Your task to perform on an android device: open app "PlayWell" Image 0: 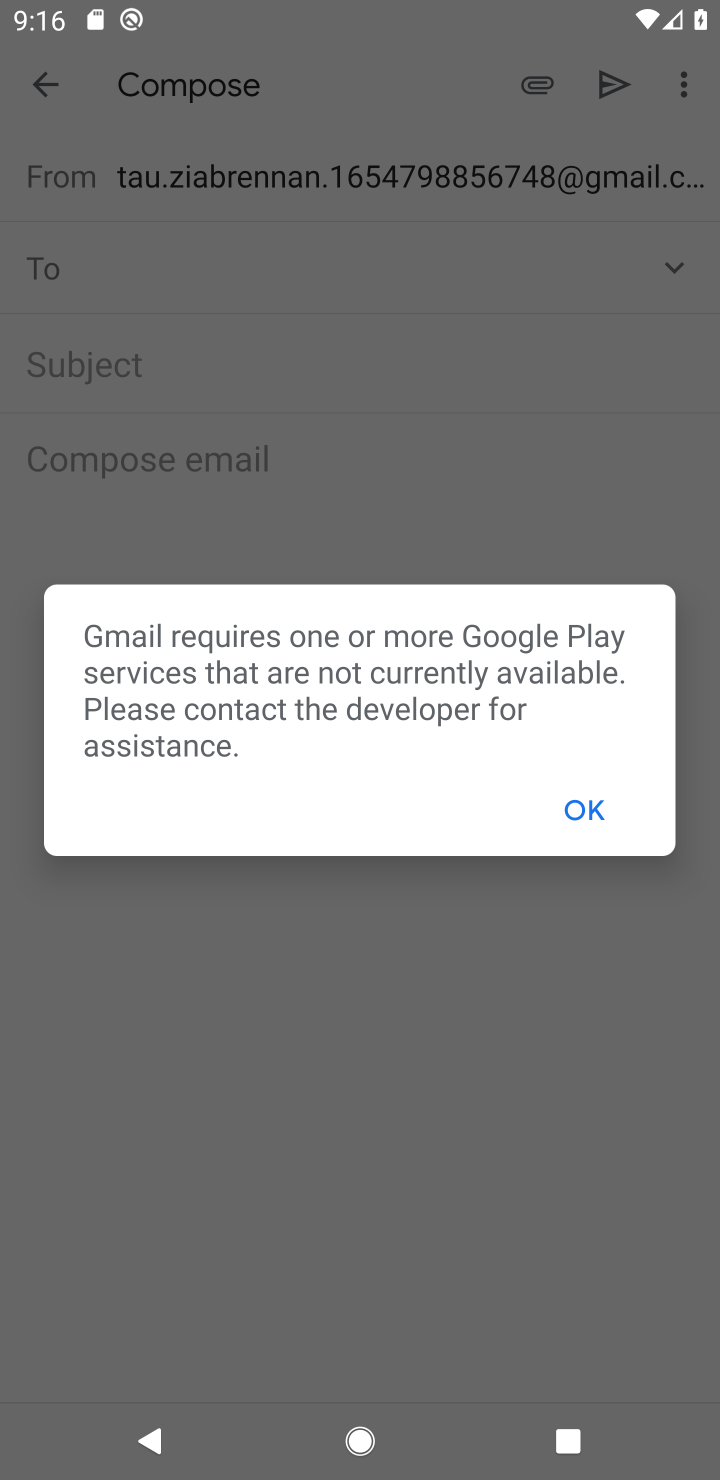
Step 0: press back button
Your task to perform on an android device: open app "PlayWell" Image 1: 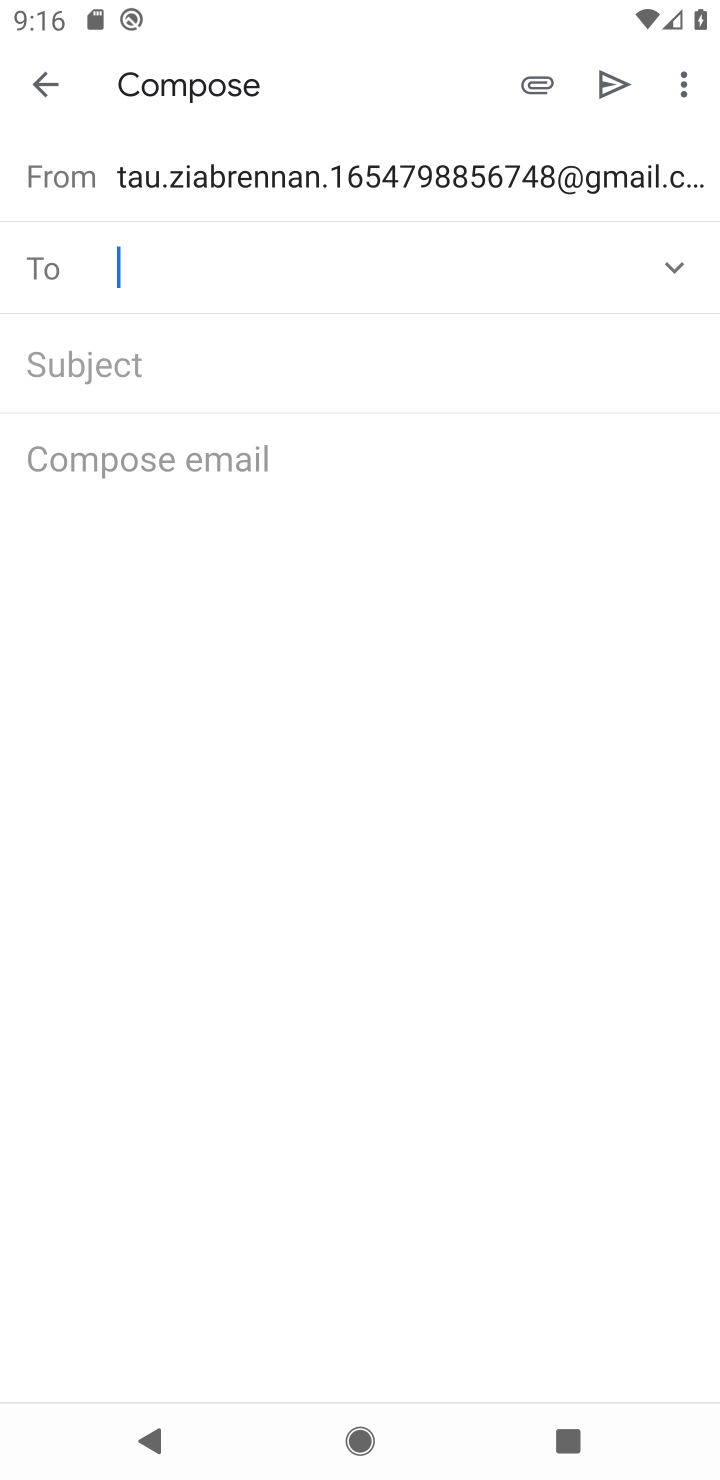
Step 1: press back button
Your task to perform on an android device: open app "PlayWell" Image 2: 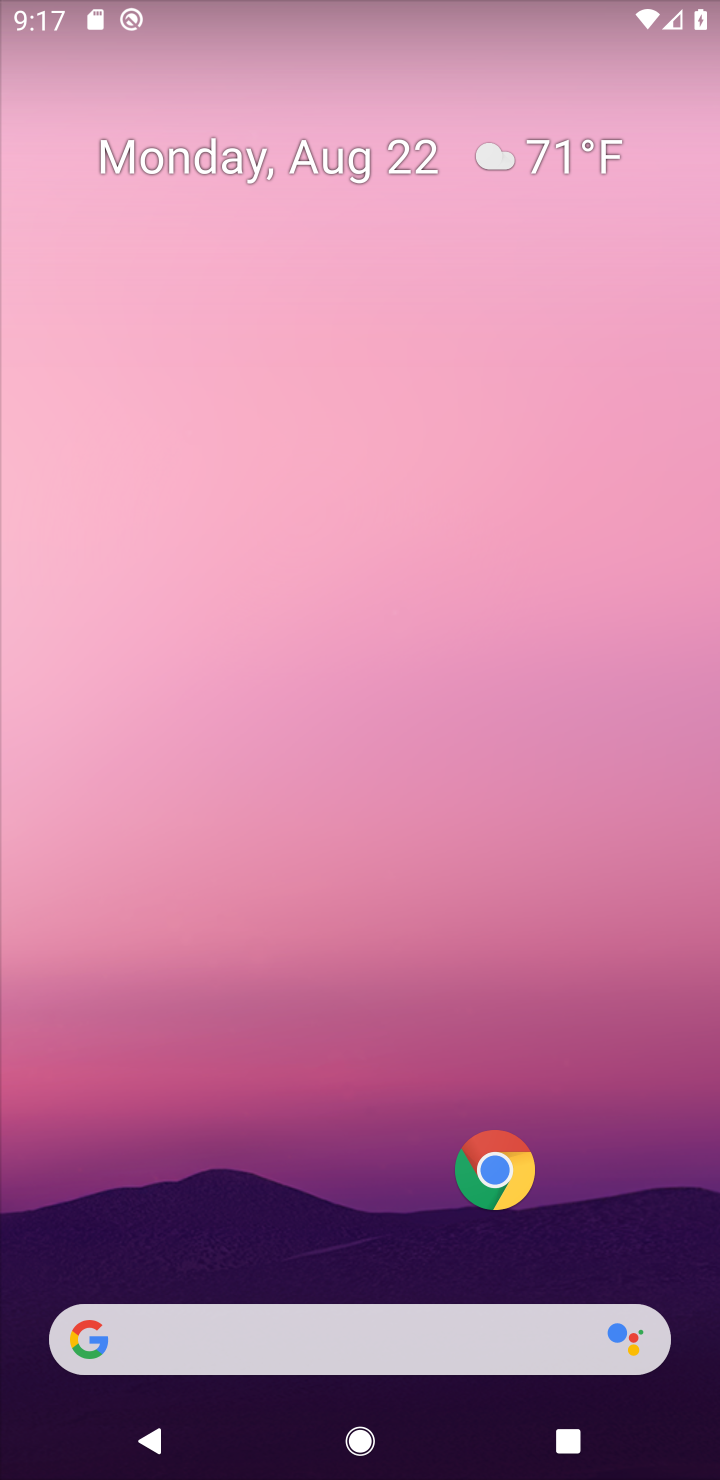
Step 2: drag from (397, 1287) to (364, 238)
Your task to perform on an android device: open app "PlayWell" Image 3: 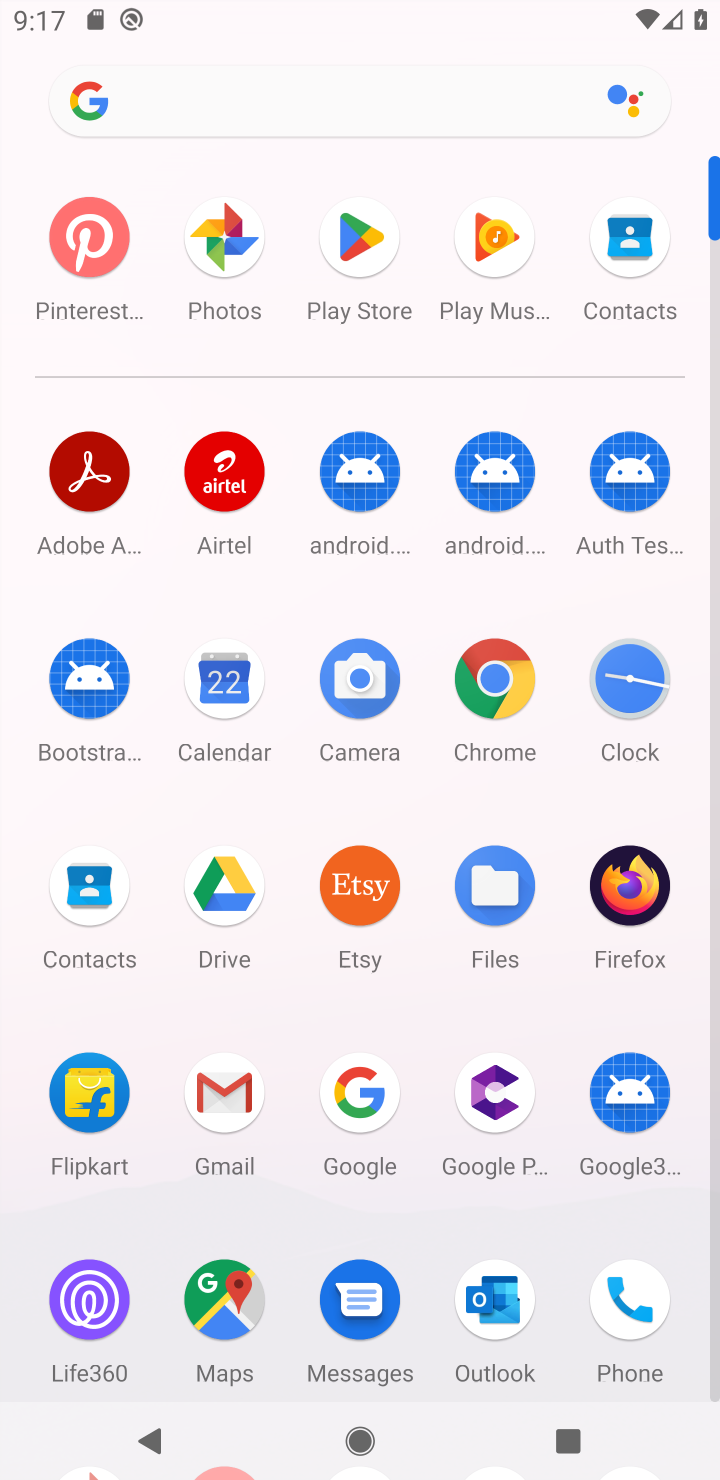
Step 3: click (360, 243)
Your task to perform on an android device: open app "PlayWell" Image 4: 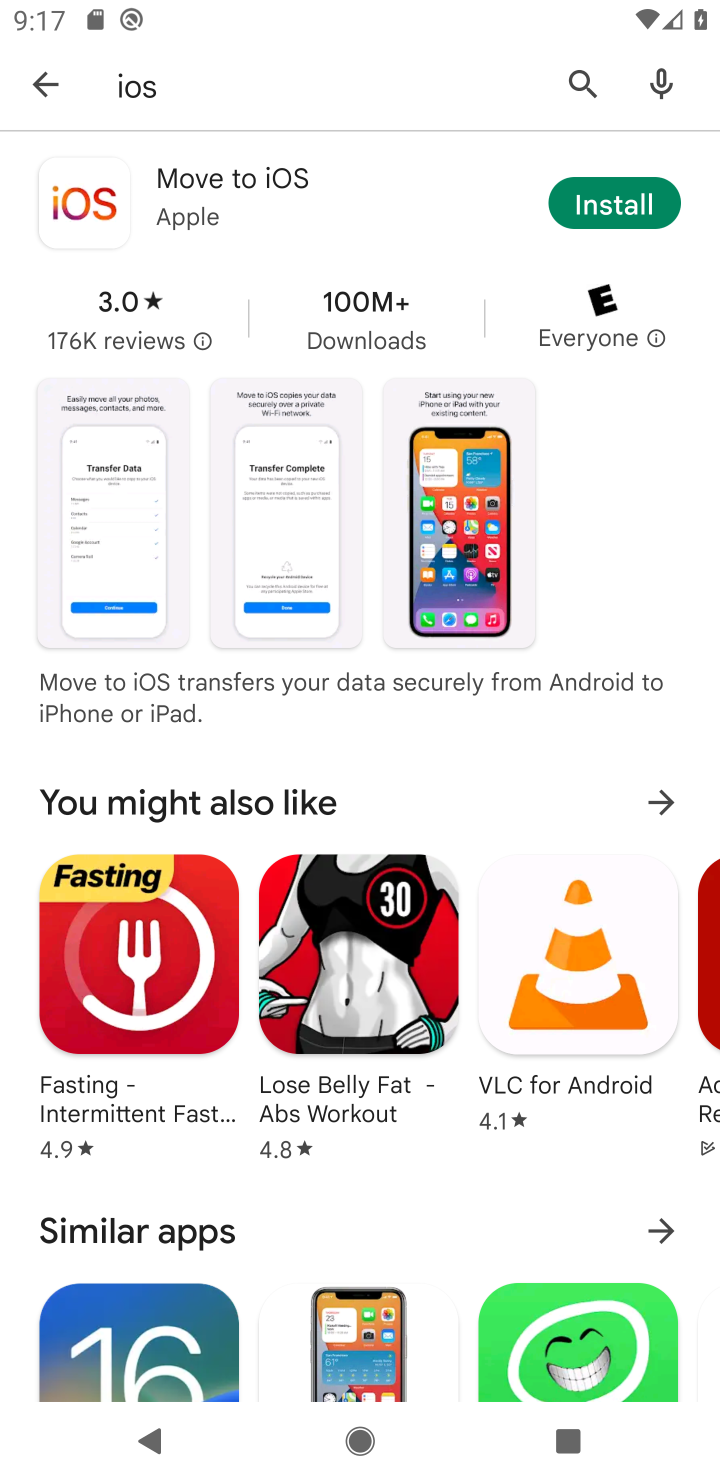
Step 4: click (586, 84)
Your task to perform on an android device: open app "PlayWell" Image 5: 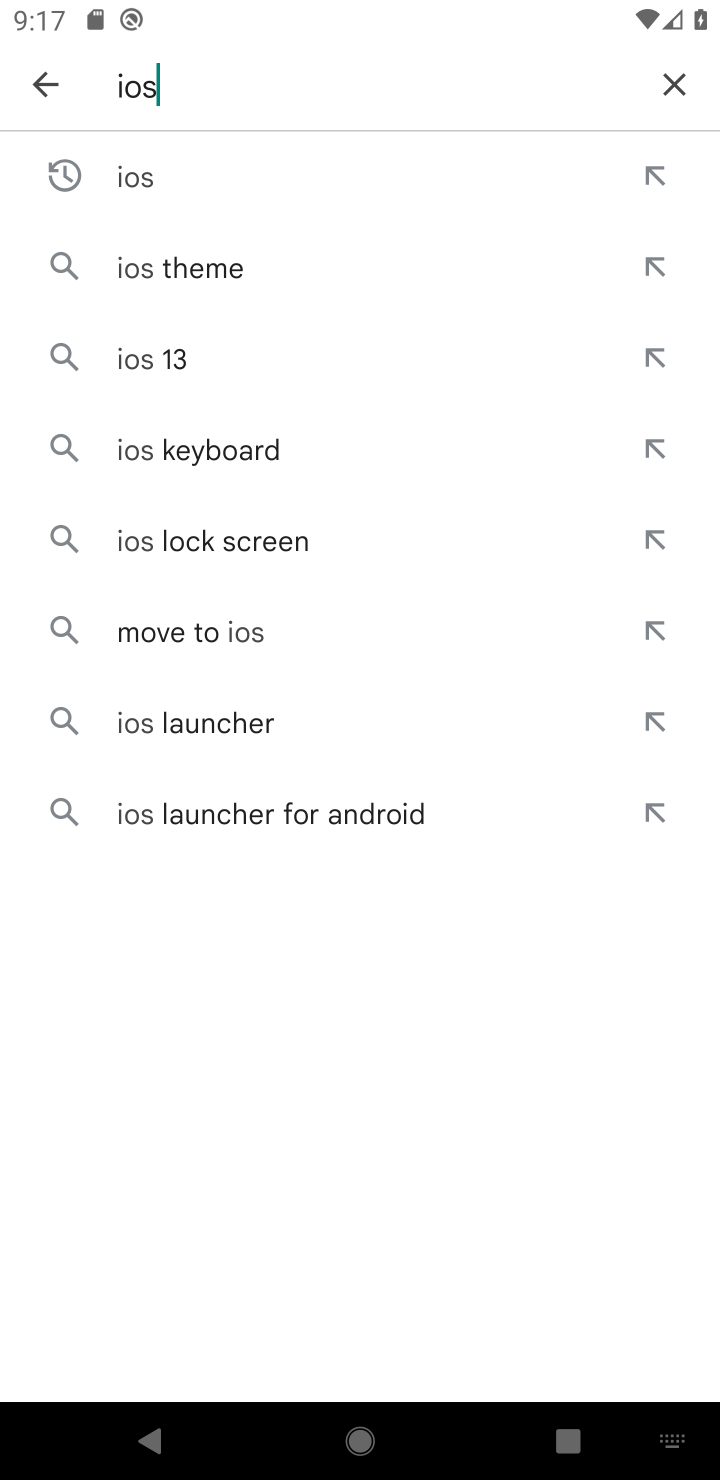
Step 5: click (673, 76)
Your task to perform on an android device: open app "PlayWell" Image 6: 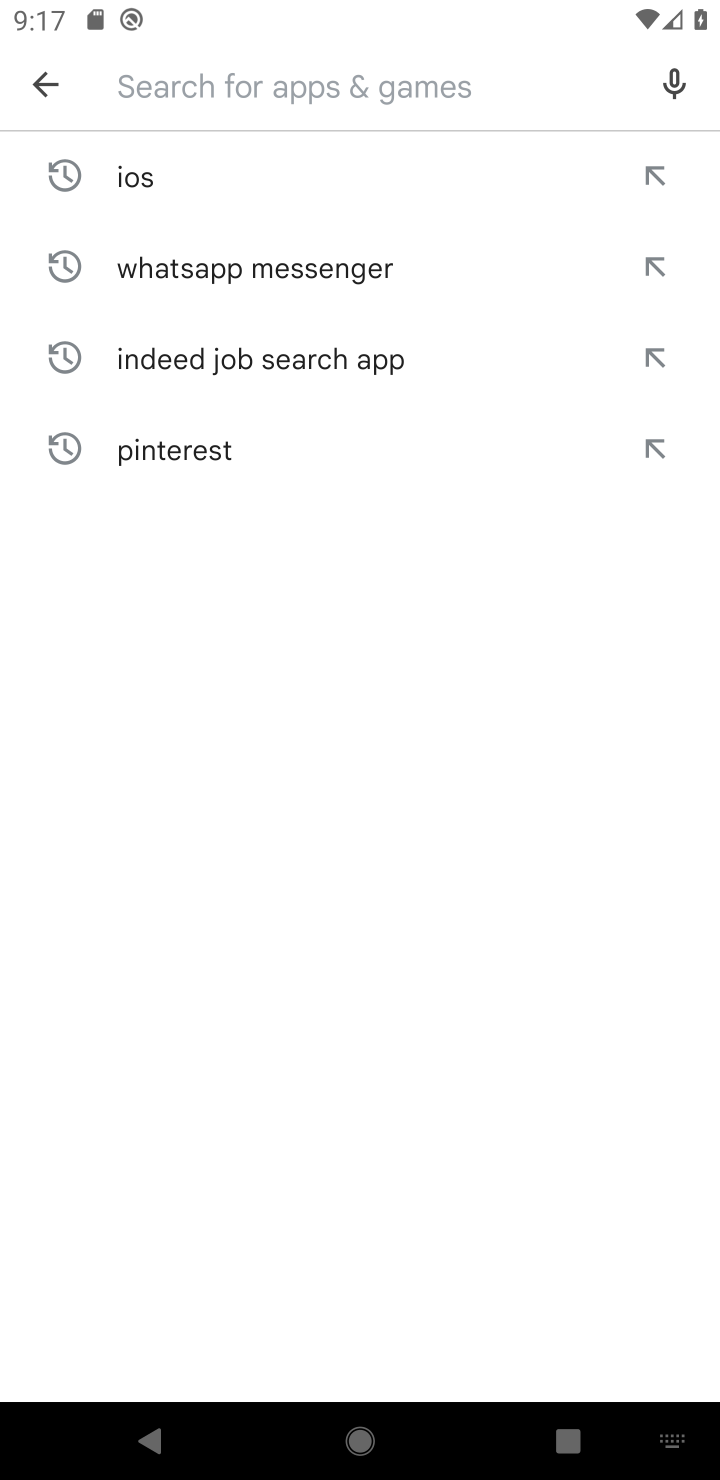
Step 6: click (216, 84)
Your task to perform on an android device: open app "PlayWell" Image 7: 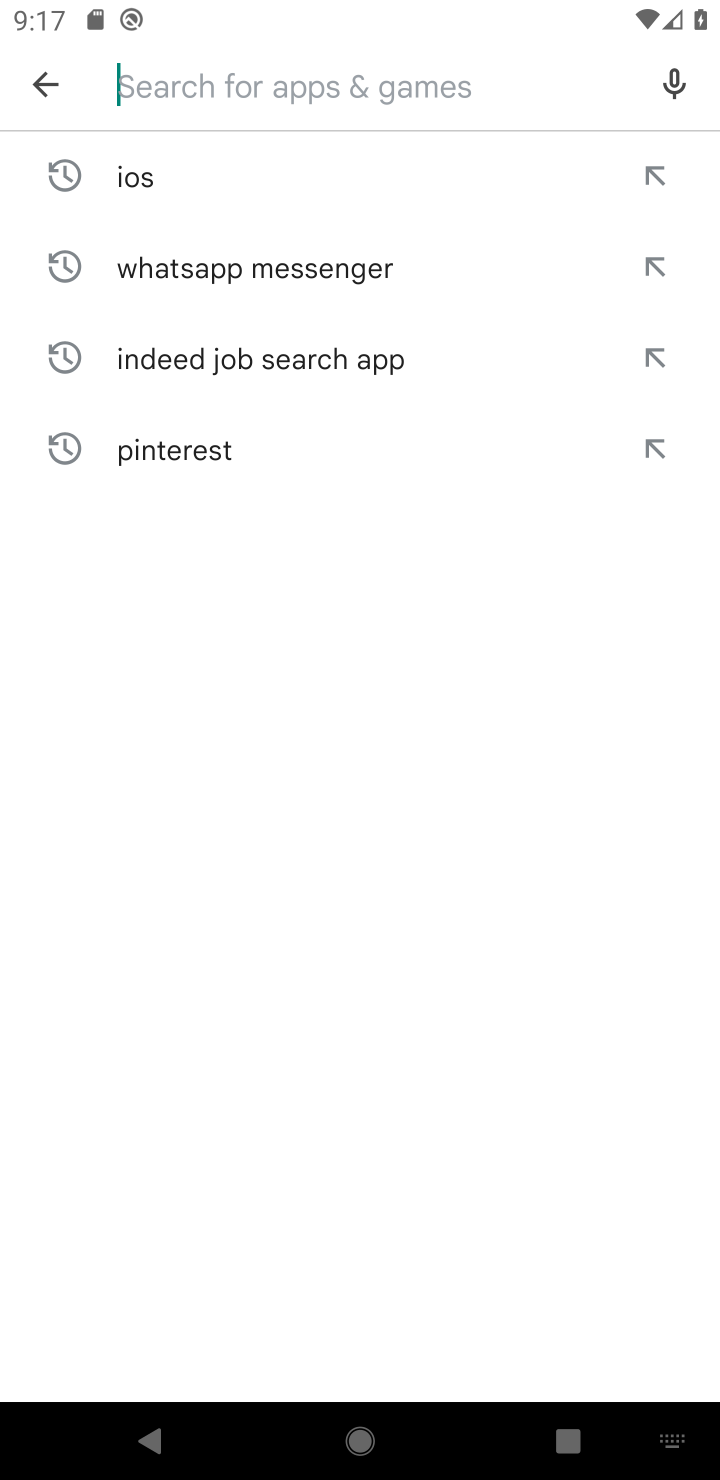
Step 7: type "play well"
Your task to perform on an android device: open app "PlayWell" Image 8: 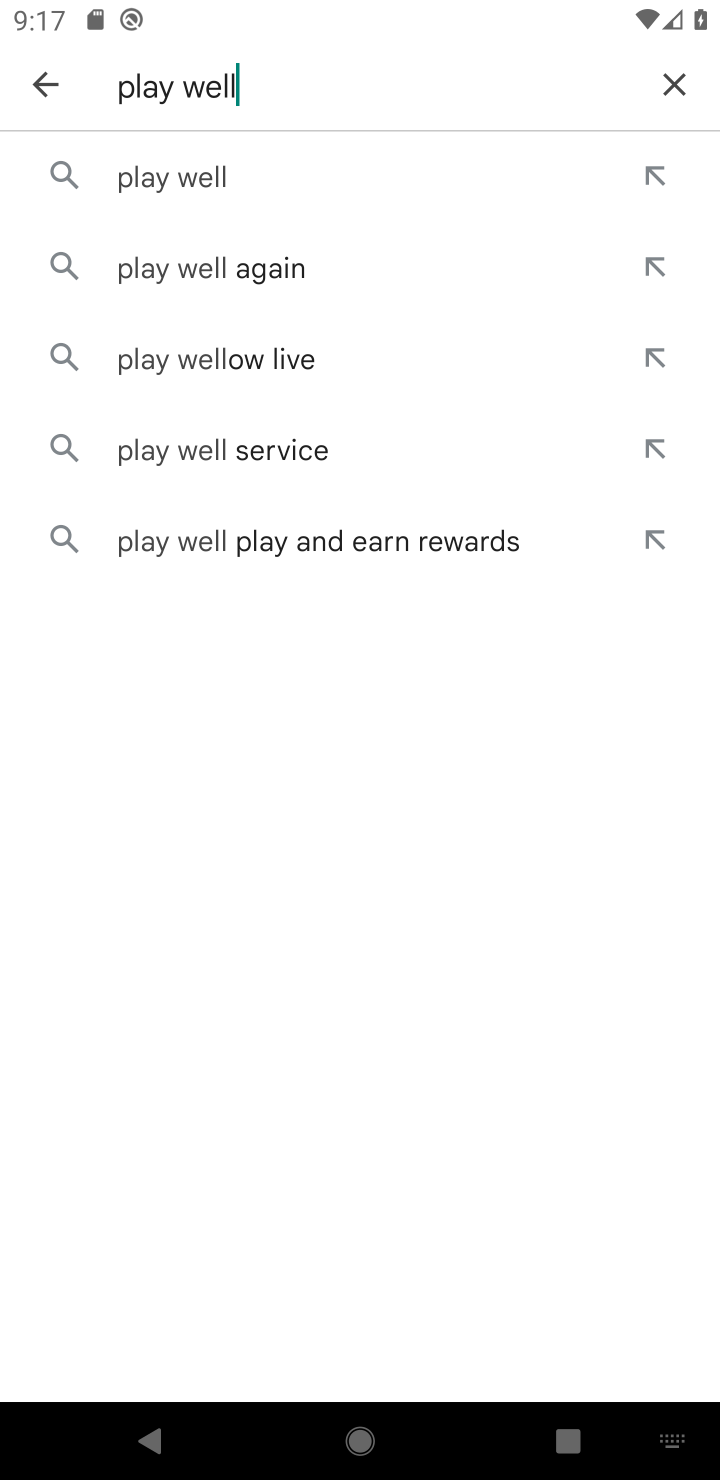
Step 8: click (161, 158)
Your task to perform on an android device: open app "PlayWell" Image 9: 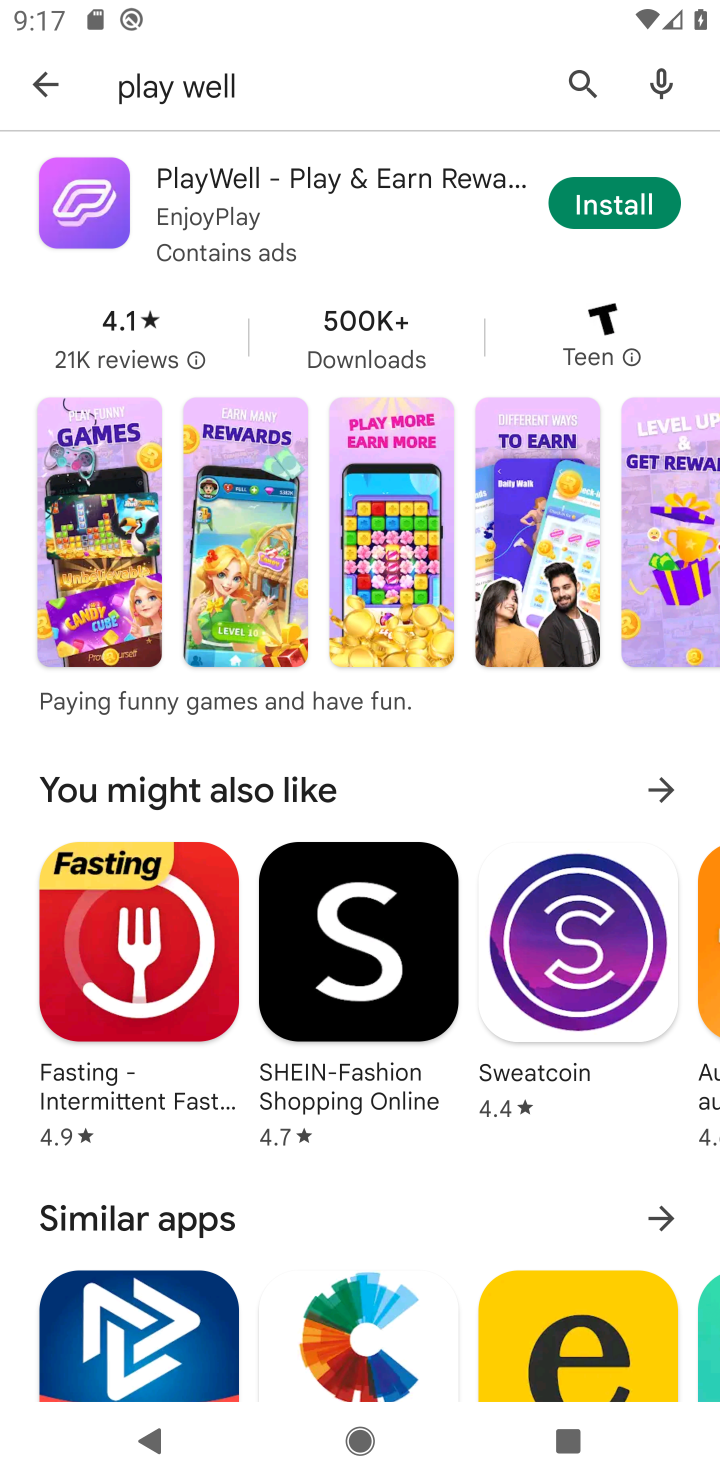
Step 9: task complete